Your task to perform on an android device: turn notification dots on Image 0: 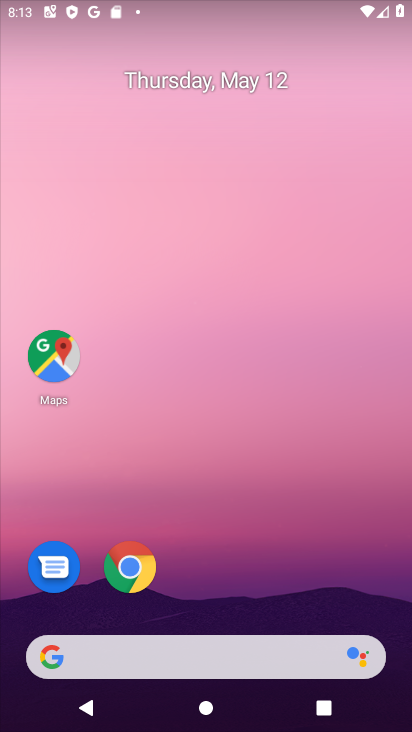
Step 0: drag from (179, 686) to (179, 103)
Your task to perform on an android device: turn notification dots on Image 1: 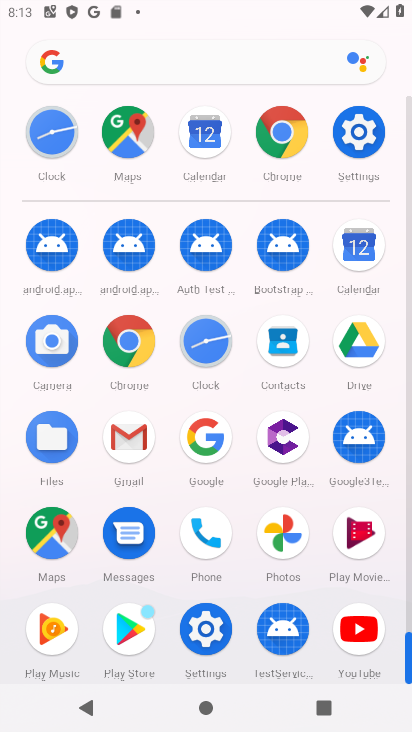
Step 1: click (369, 152)
Your task to perform on an android device: turn notification dots on Image 2: 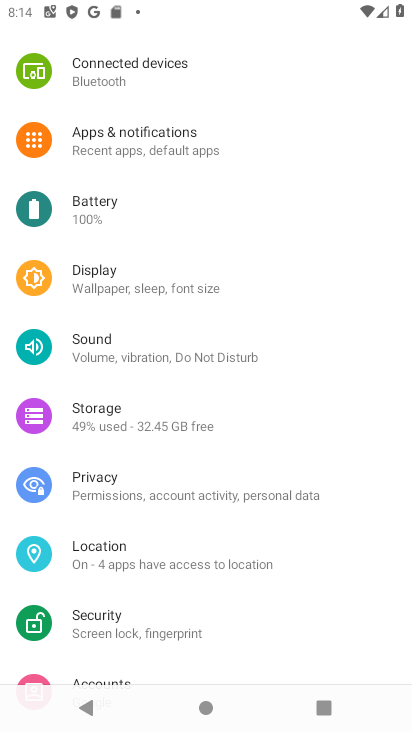
Step 2: click (185, 138)
Your task to perform on an android device: turn notification dots on Image 3: 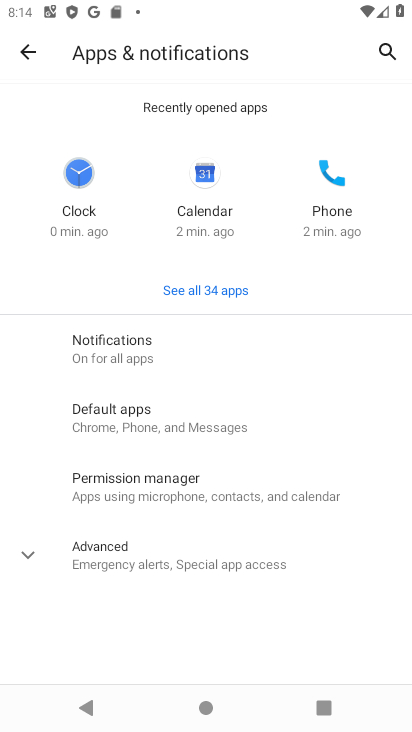
Step 3: click (145, 356)
Your task to perform on an android device: turn notification dots on Image 4: 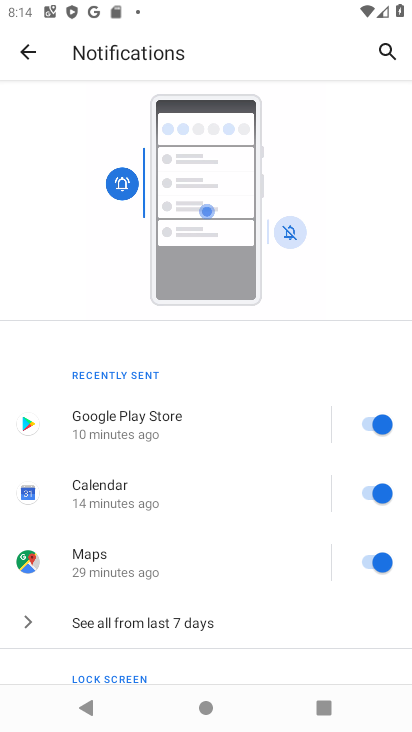
Step 4: drag from (110, 612) to (146, 243)
Your task to perform on an android device: turn notification dots on Image 5: 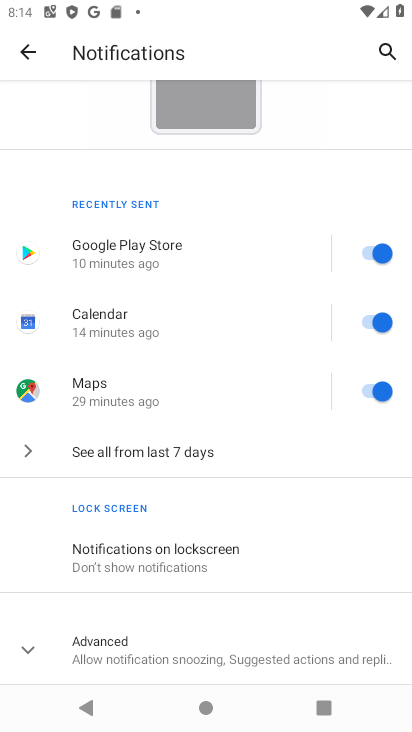
Step 5: click (136, 658)
Your task to perform on an android device: turn notification dots on Image 6: 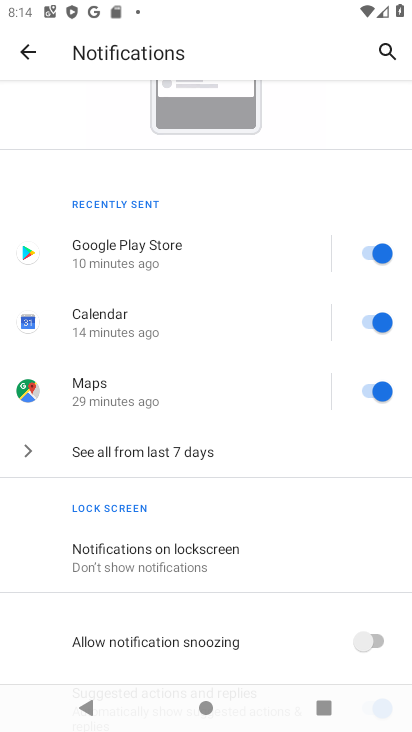
Step 6: task complete